Your task to perform on an android device: Open calendar and show me the fourth week of next month Image 0: 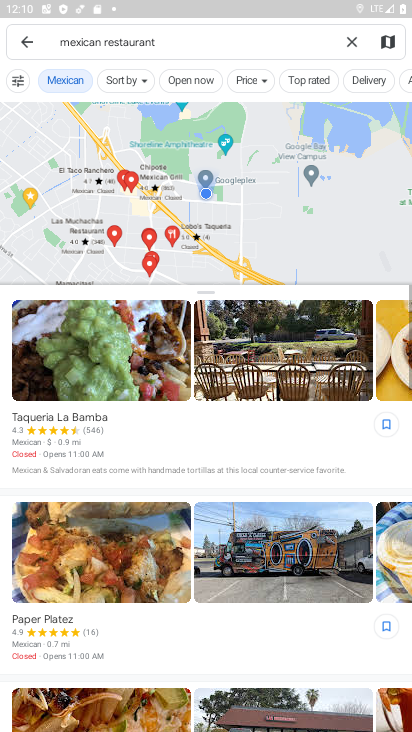
Step 0: press home button
Your task to perform on an android device: Open calendar and show me the fourth week of next month Image 1: 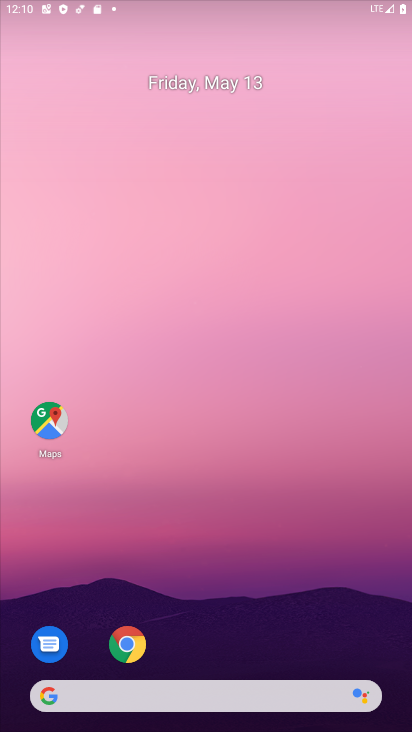
Step 1: drag from (387, 631) to (219, 53)
Your task to perform on an android device: Open calendar and show me the fourth week of next month Image 2: 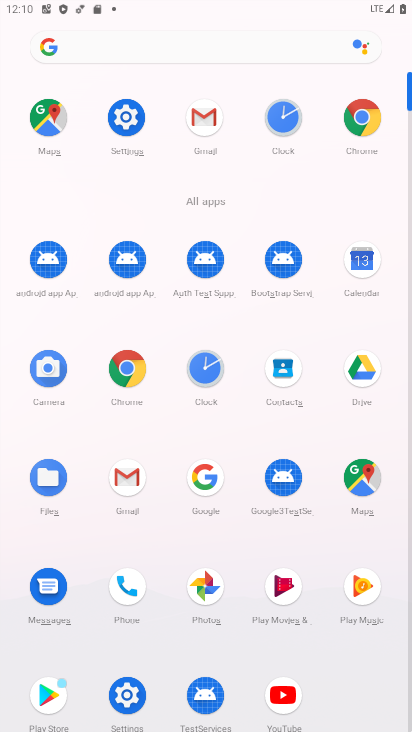
Step 2: click (353, 282)
Your task to perform on an android device: Open calendar and show me the fourth week of next month Image 3: 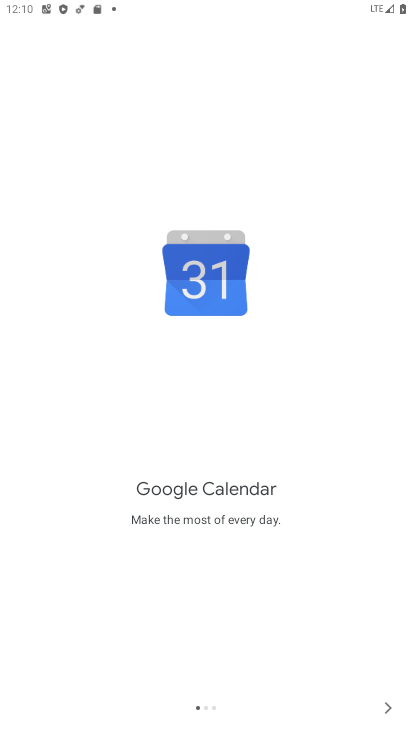
Step 3: click (390, 704)
Your task to perform on an android device: Open calendar and show me the fourth week of next month Image 4: 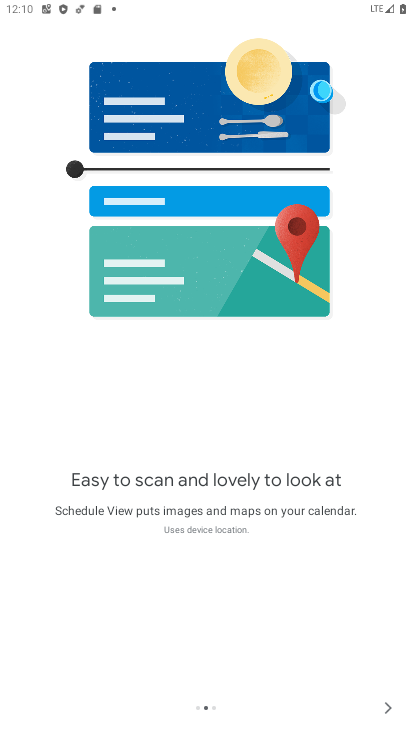
Step 4: click (390, 704)
Your task to perform on an android device: Open calendar and show me the fourth week of next month Image 5: 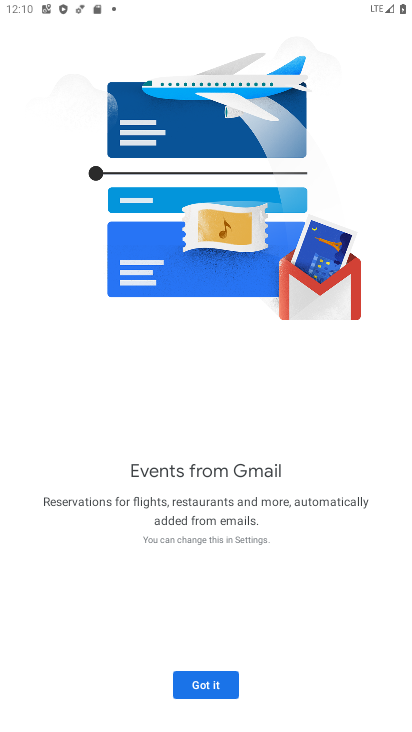
Step 5: click (183, 693)
Your task to perform on an android device: Open calendar and show me the fourth week of next month Image 6: 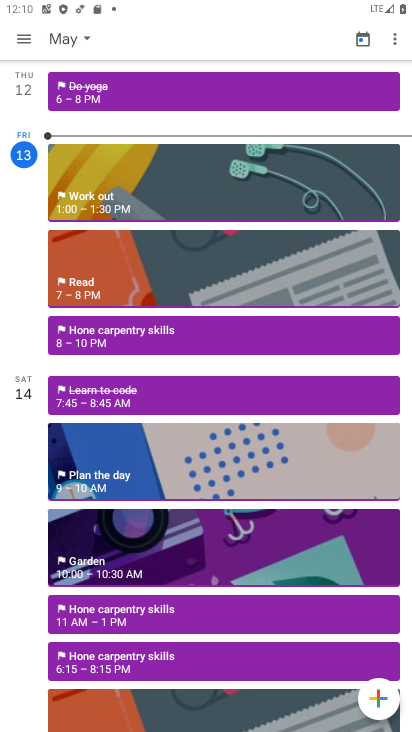
Step 6: click (60, 41)
Your task to perform on an android device: Open calendar and show me the fourth week of next month Image 7: 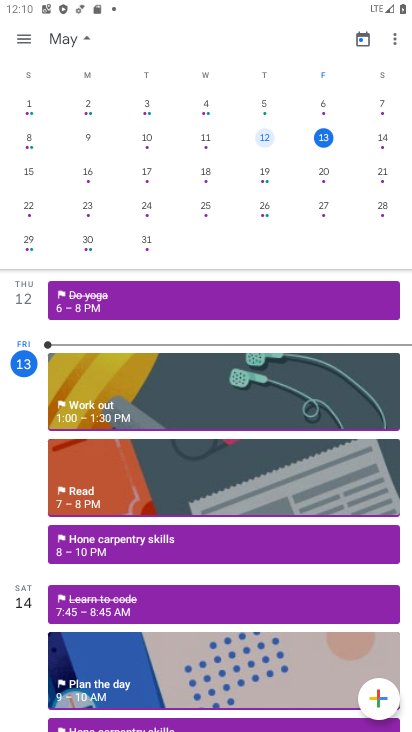
Step 7: click (56, 40)
Your task to perform on an android device: Open calendar and show me the fourth week of next month Image 8: 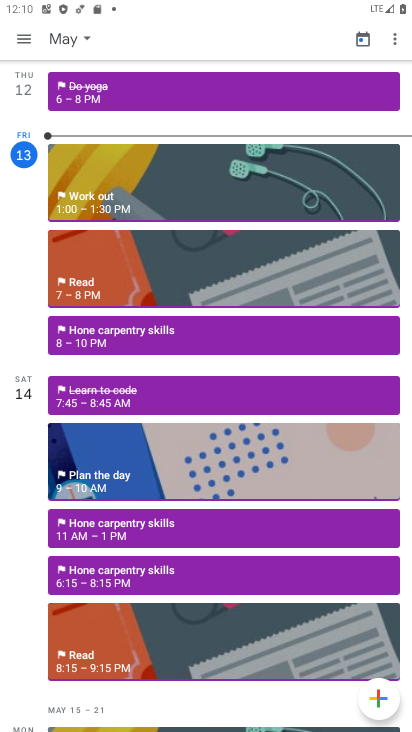
Step 8: click (68, 36)
Your task to perform on an android device: Open calendar and show me the fourth week of next month Image 9: 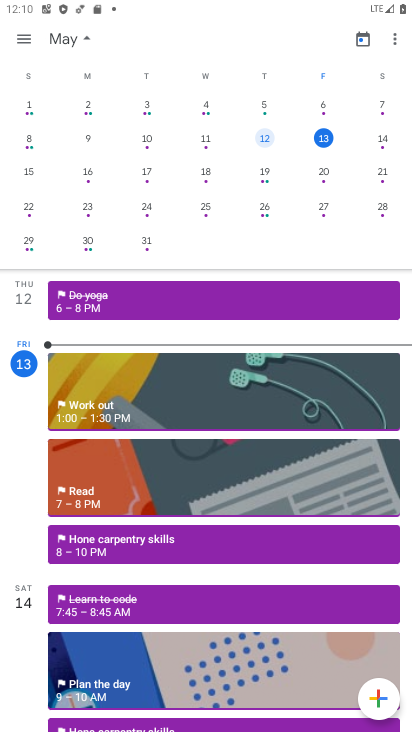
Step 9: drag from (310, 197) to (2, 173)
Your task to perform on an android device: Open calendar and show me the fourth week of next month Image 10: 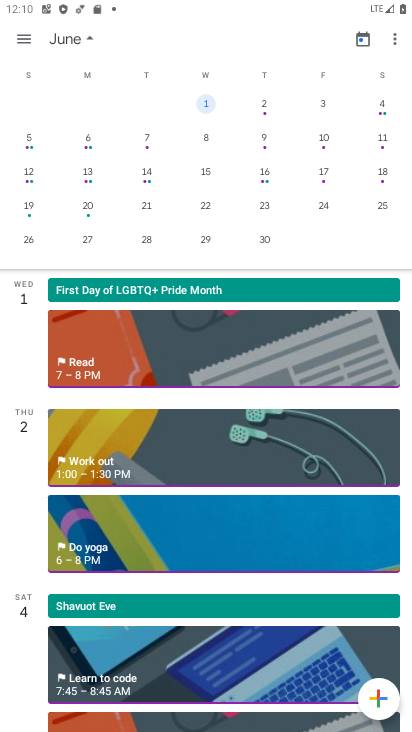
Step 10: click (89, 246)
Your task to perform on an android device: Open calendar and show me the fourth week of next month Image 11: 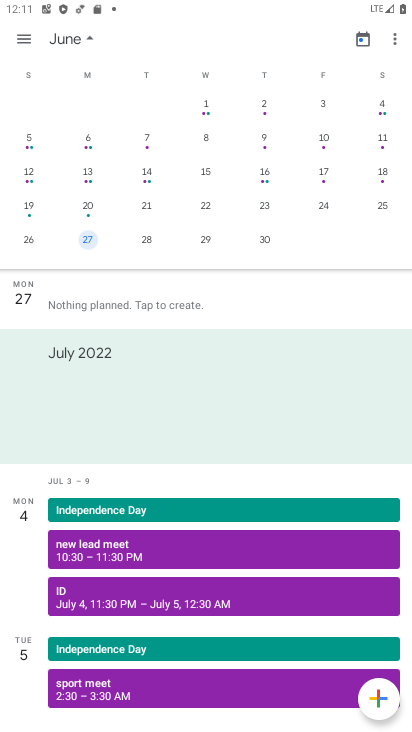
Step 11: task complete